Your task to perform on an android device: Open my contact list Image 0: 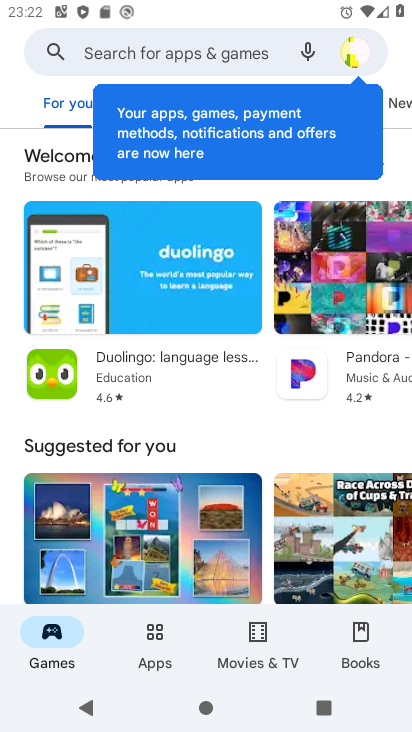
Step 0: press home button
Your task to perform on an android device: Open my contact list Image 1: 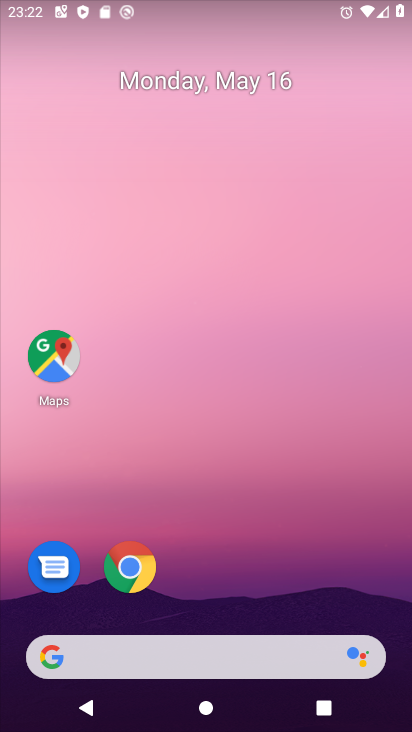
Step 1: drag from (267, 552) to (154, 72)
Your task to perform on an android device: Open my contact list Image 2: 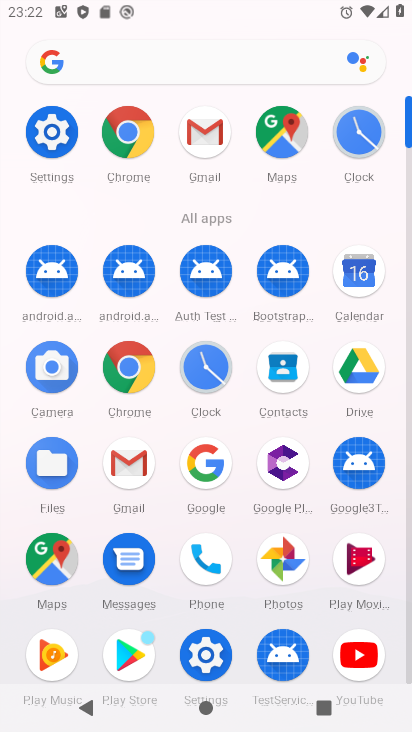
Step 2: click (284, 370)
Your task to perform on an android device: Open my contact list Image 3: 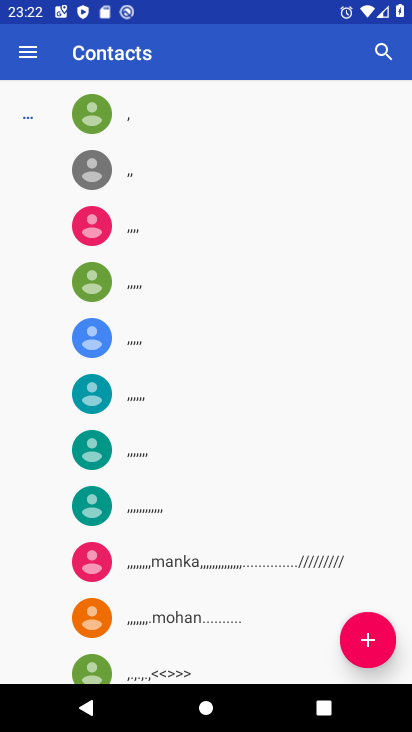
Step 3: task complete